Your task to perform on an android device: Show me recent news Image 0: 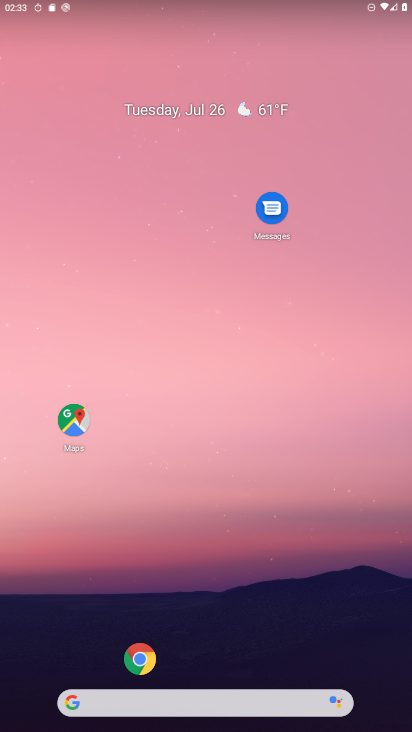
Step 0: click (165, 703)
Your task to perform on an android device: Show me recent news Image 1: 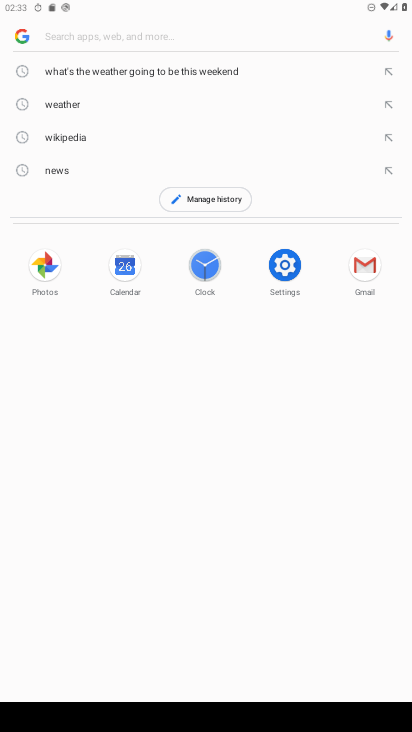
Step 1: type " recent news"
Your task to perform on an android device: Show me recent news Image 2: 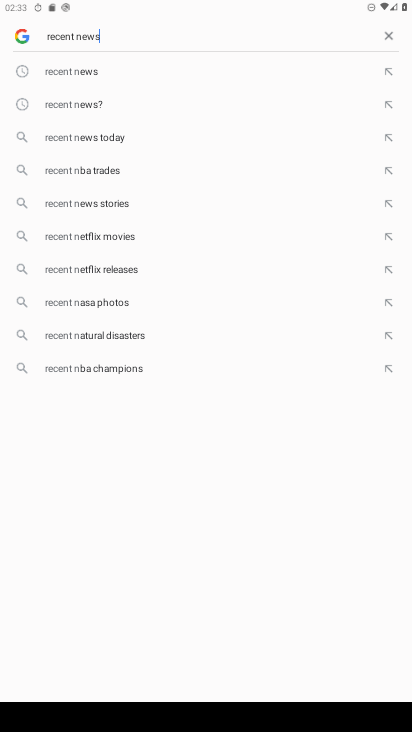
Step 2: type ""
Your task to perform on an android device: Show me recent news Image 3: 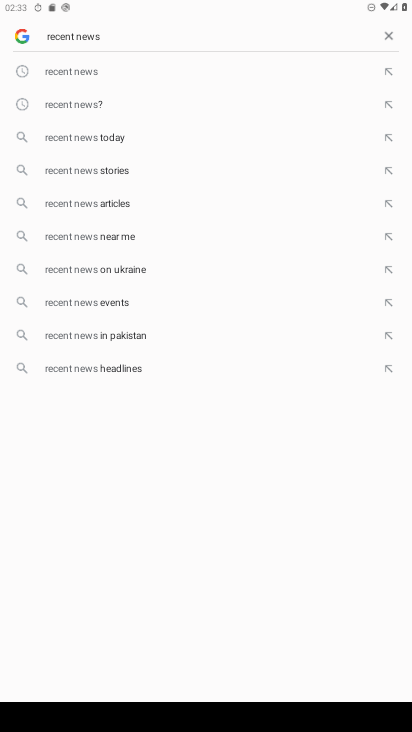
Step 3: click (82, 77)
Your task to perform on an android device: Show me recent news Image 4: 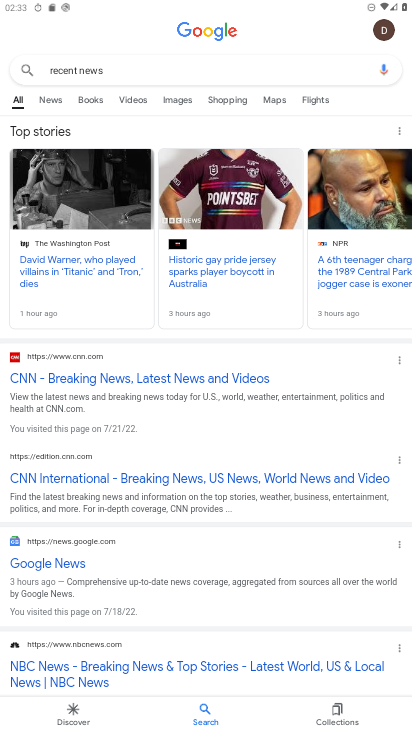
Step 4: task complete